Your task to perform on an android device: check out phone information Image 0: 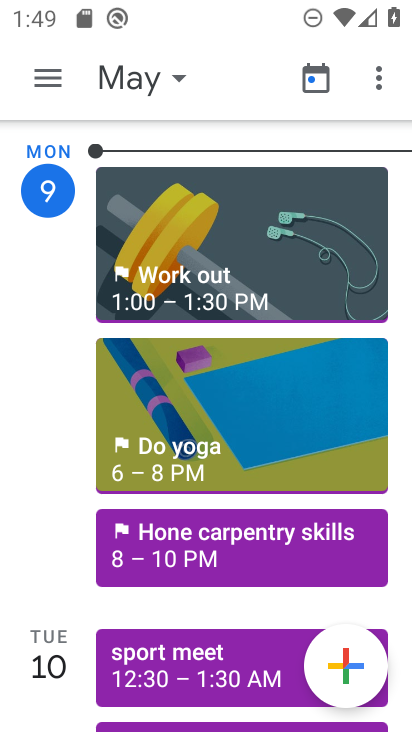
Step 0: press home button
Your task to perform on an android device: check out phone information Image 1: 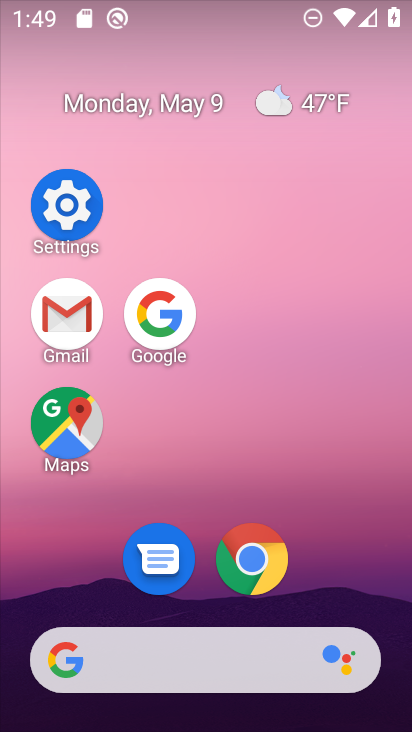
Step 1: click (66, 200)
Your task to perform on an android device: check out phone information Image 2: 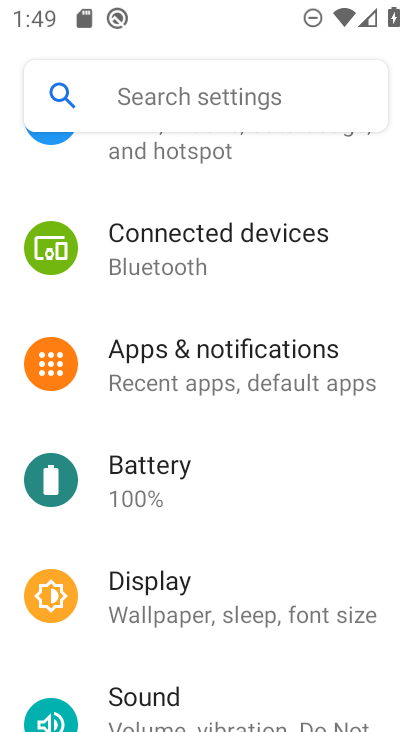
Step 2: drag from (278, 627) to (318, 251)
Your task to perform on an android device: check out phone information Image 3: 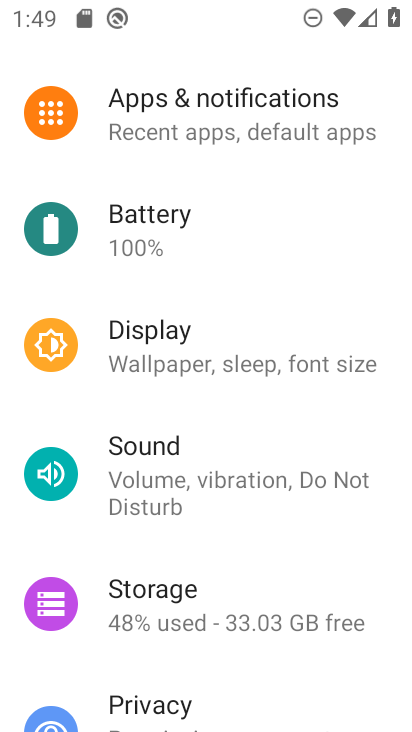
Step 3: drag from (331, 644) to (345, 142)
Your task to perform on an android device: check out phone information Image 4: 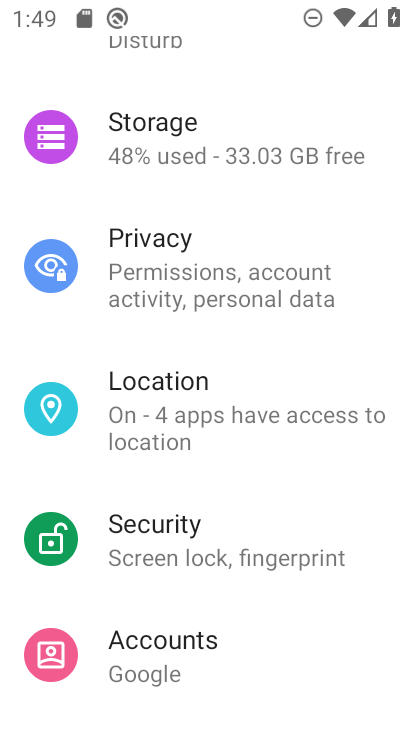
Step 4: drag from (251, 653) to (310, 204)
Your task to perform on an android device: check out phone information Image 5: 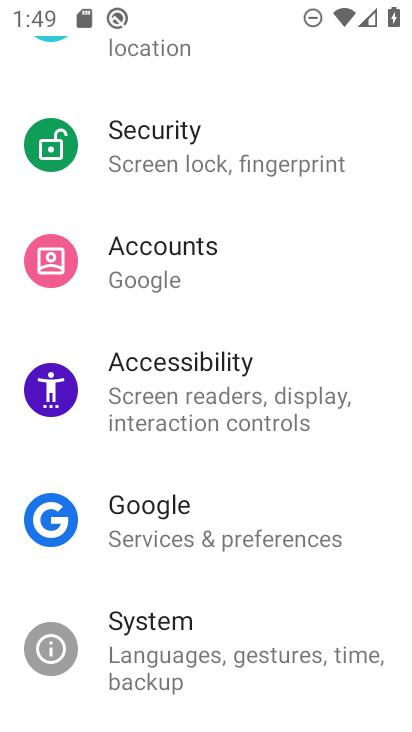
Step 5: drag from (262, 625) to (310, 208)
Your task to perform on an android device: check out phone information Image 6: 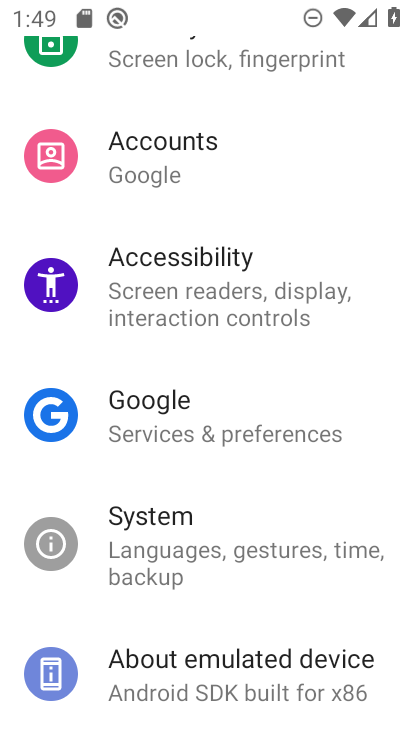
Step 6: click (243, 660)
Your task to perform on an android device: check out phone information Image 7: 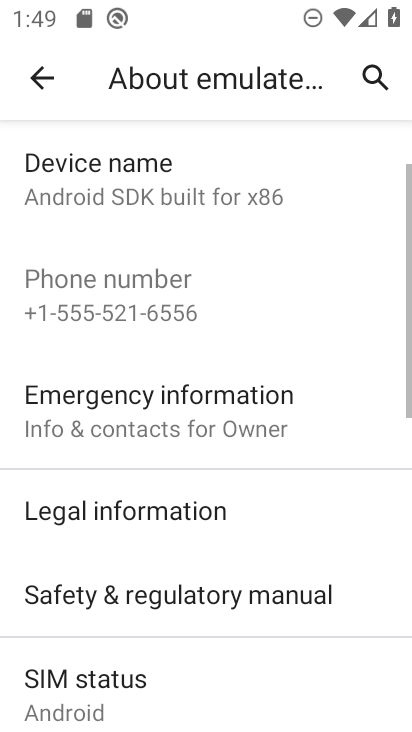
Step 7: drag from (245, 644) to (297, 254)
Your task to perform on an android device: check out phone information Image 8: 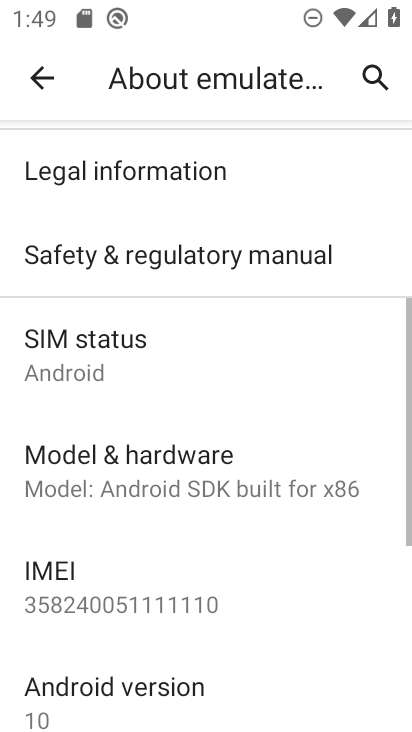
Step 8: click (258, 473)
Your task to perform on an android device: check out phone information Image 9: 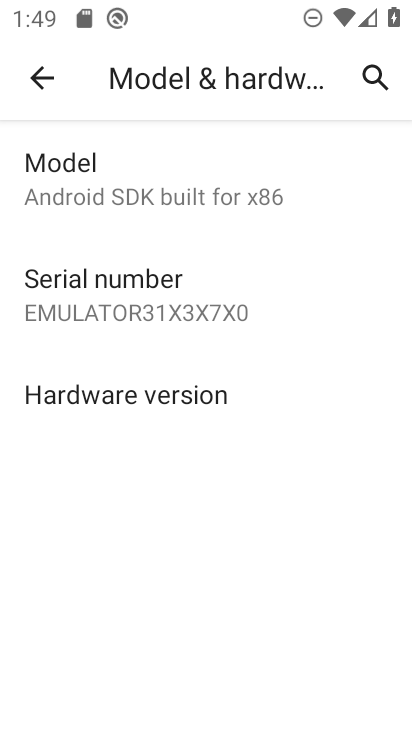
Step 9: task complete